Your task to perform on an android device: check storage Image 0: 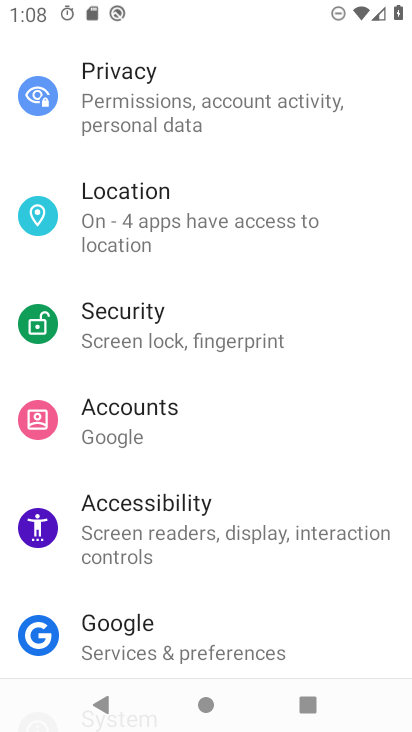
Step 0: drag from (144, 174) to (137, 585)
Your task to perform on an android device: check storage Image 1: 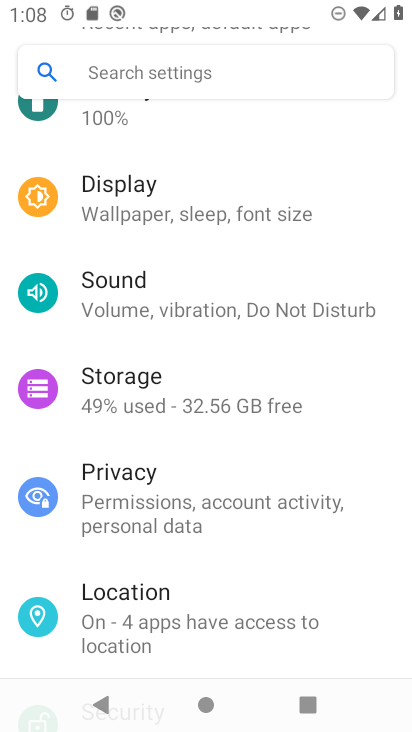
Step 1: click (120, 390)
Your task to perform on an android device: check storage Image 2: 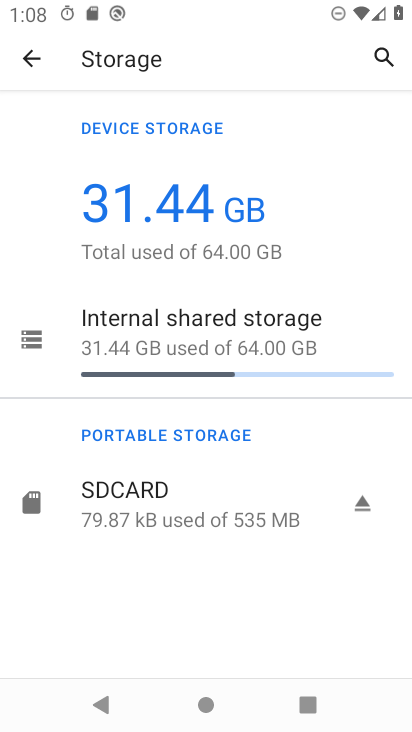
Step 2: task complete